Your task to perform on an android device: set the timer Image 0: 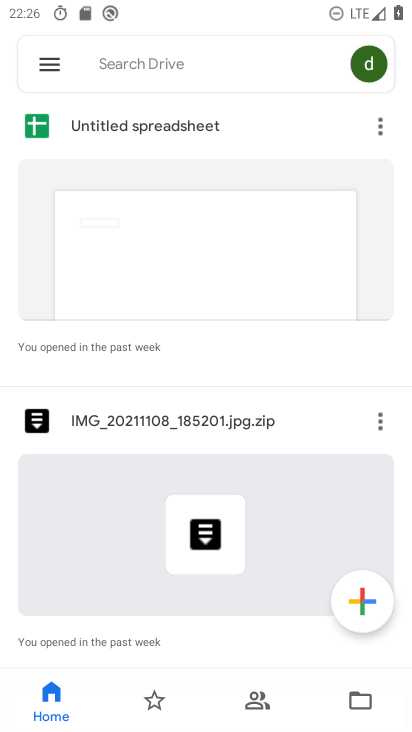
Step 0: press home button
Your task to perform on an android device: set the timer Image 1: 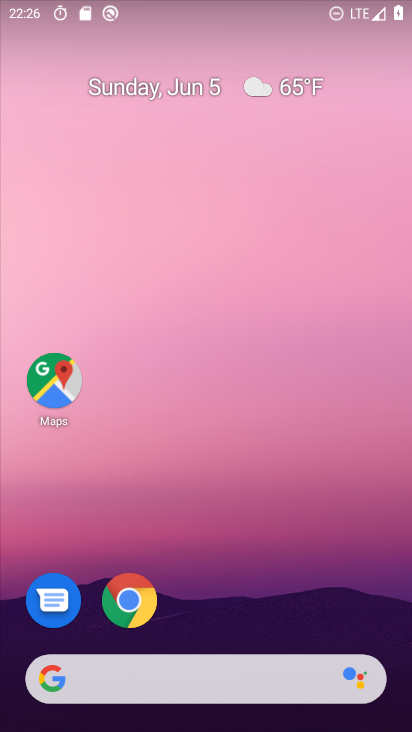
Step 1: drag from (295, 557) to (273, 13)
Your task to perform on an android device: set the timer Image 2: 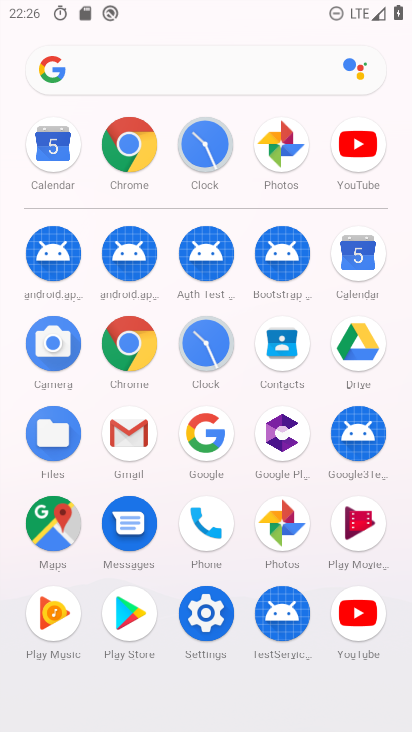
Step 2: click (203, 337)
Your task to perform on an android device: set the timer Image 3: 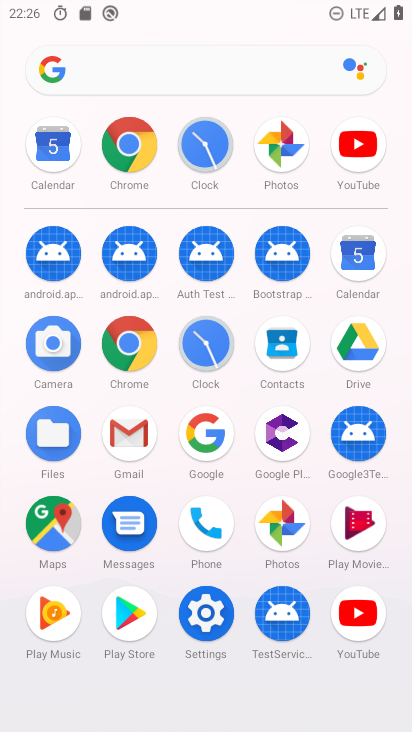
Step 3: click (202, 337)
Your task to perform on an android device: set the timer Image 4: 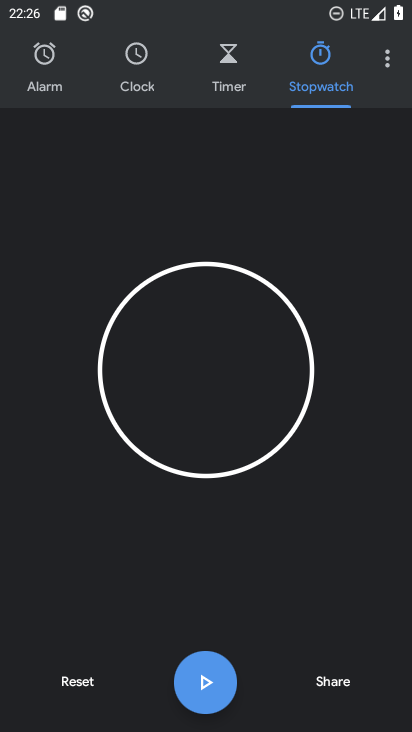
Step 4: click (225, 58)
Your task to perform on an android device: set the timer Image 5: 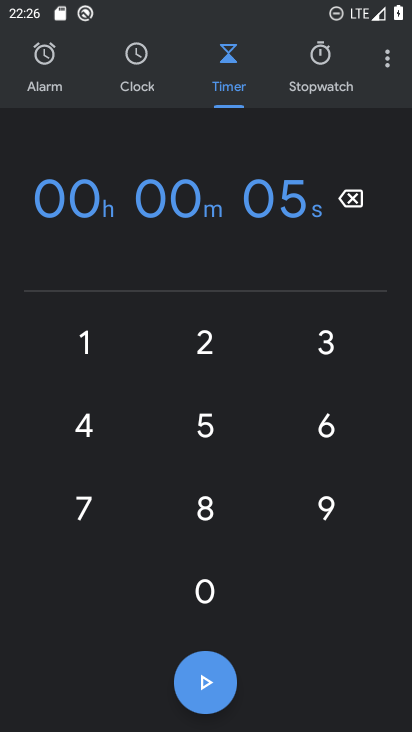
Step 5: task complete